Your task to perform on an android device: Go to sound settings Image 0: 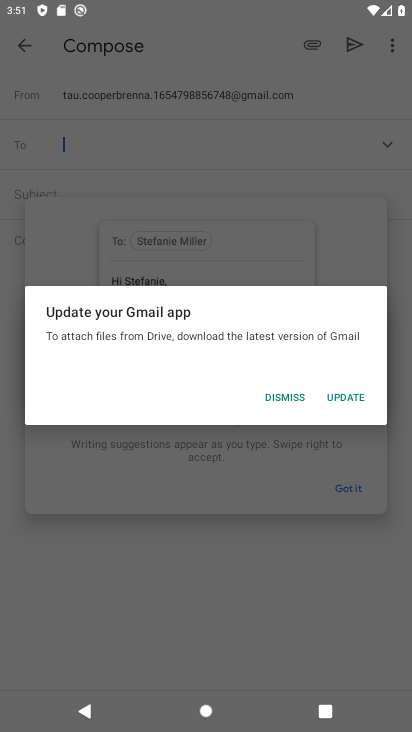
Step 0: press home button
Your task to perform on an android device: Go to sound settings Image 1: 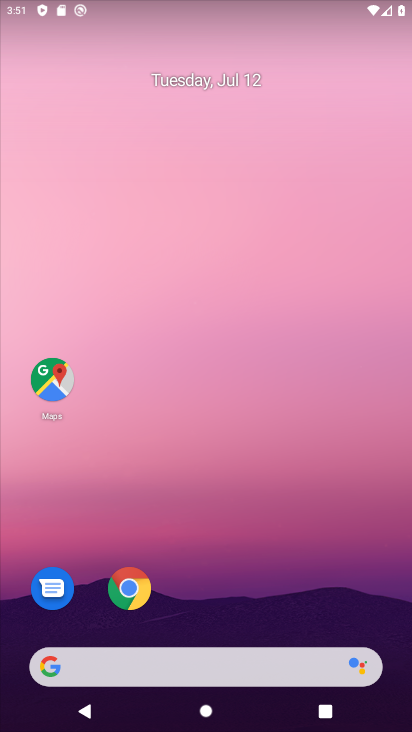
Step 1: drag from (339, 527) to (385, 83)
Your task to perform on an android device: Go to sound settings Image 2: 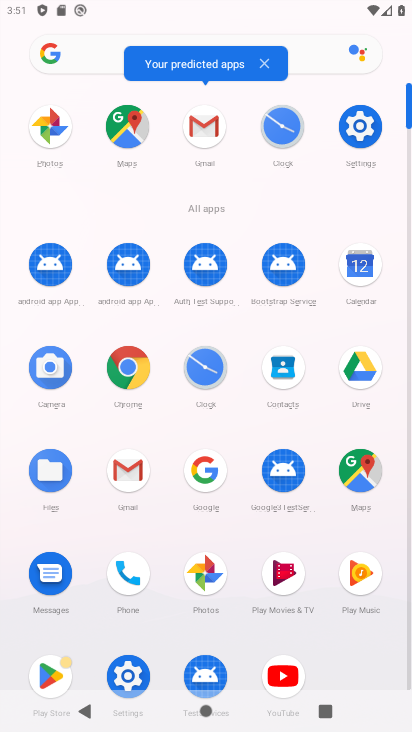
Step 2: click (378, 135)
Your task to perform on an android device: Go to sound settings Image 3: 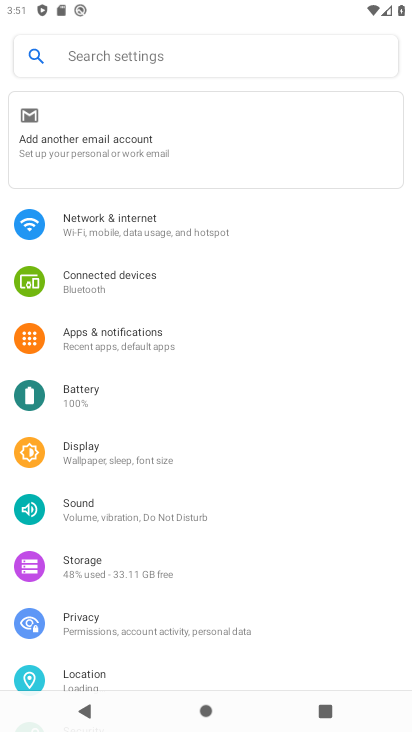
Step 3: click (133, 523)
Your task to perform on an android device: Go to sound settings Image 4: 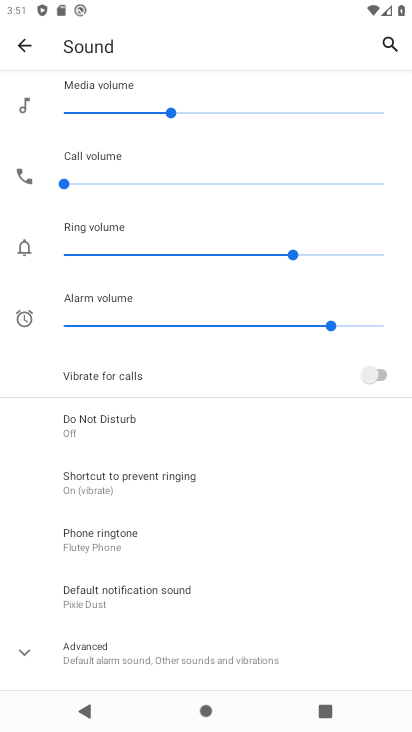
Step 4: task complete